Your task to perform on an android device: Open Amazon Image 0: 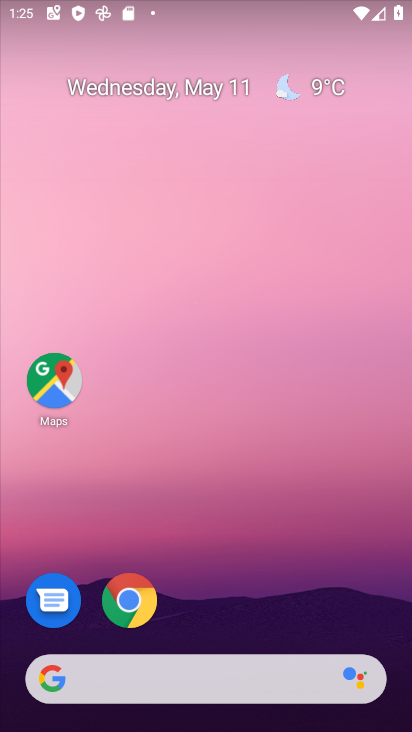
Step 0: click (237, 681)
Your task to perform on an android device: Open Amazon Image 1: 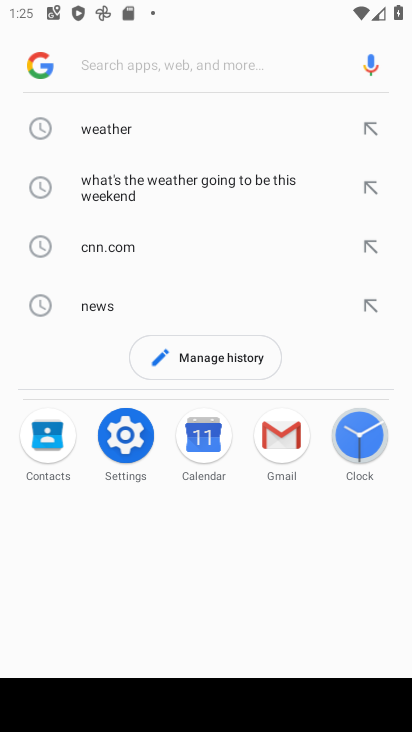
Step 1: type "amazon"
Your task to perform on an android device: Open Amazon Image 2: 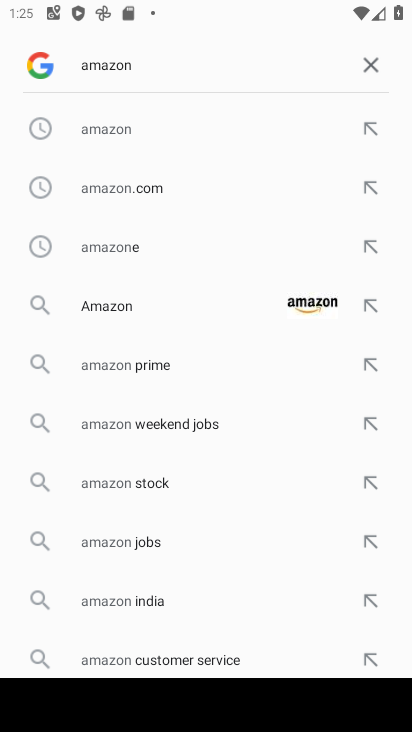
Step 2: click (304, 303)
Your task to perform on an android device: Open Amazon Image 3: 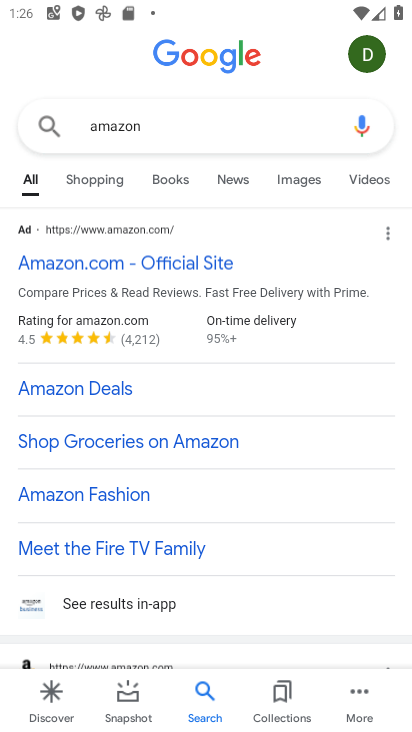
Step 3: click (135, 227)
Your task to perform on an android device: Open Amazon Image 4: 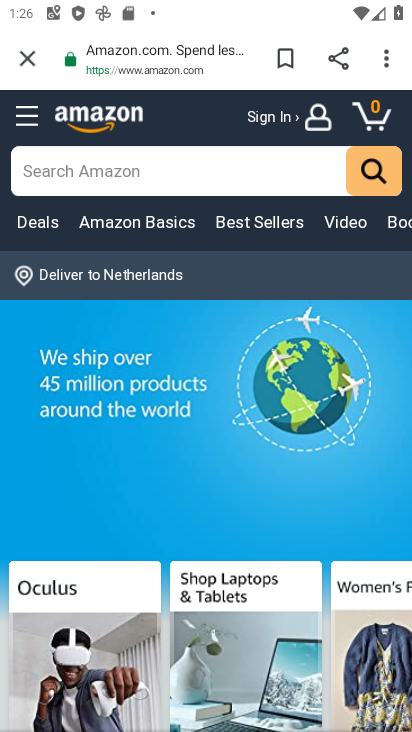
Step 4: task complete